Your task to perform on an android device: choose inbox layout in the gmail app Image 0: 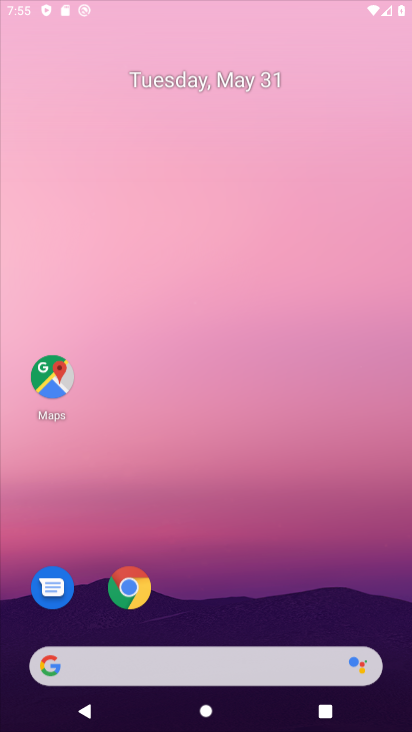
Step 0: press home button
Your task to perform on an android device: choose inbox layout in the gmail app Image 1: 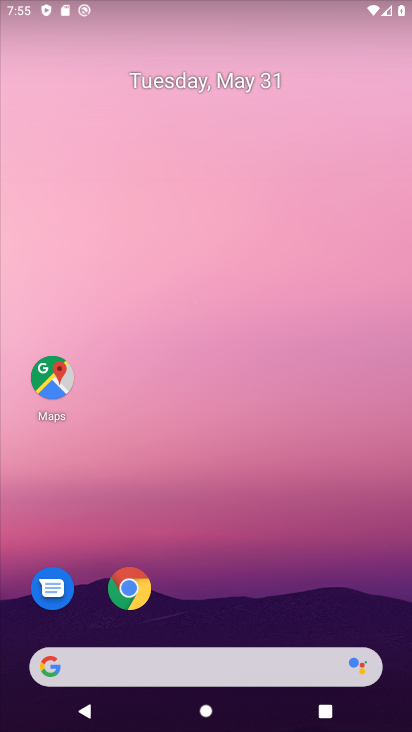
Step 1: drag from (196, 622) to (236, 287)
Your task to perform on an android device: choose inbox layout in the gmail app Image 2: 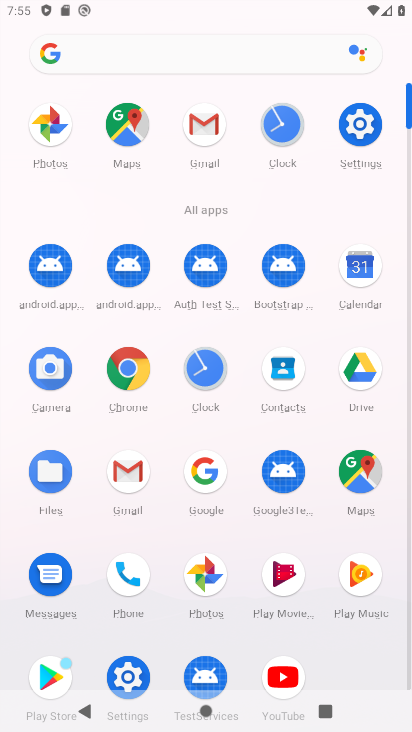
Step 2: click (196, 128)
Your task to perform on an android device: choose inbox layout in the gmail app Image 3: 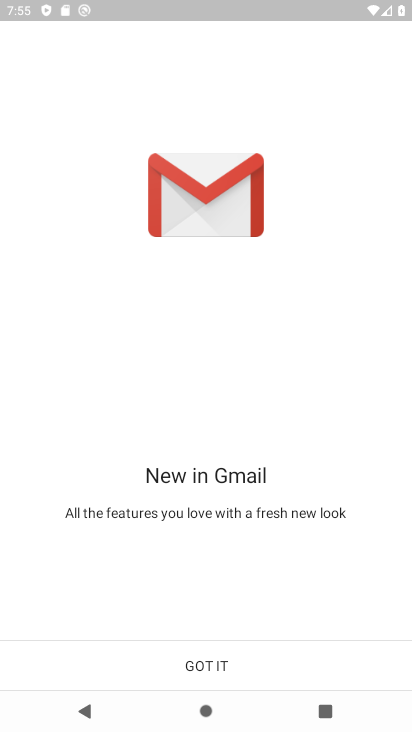
Step 3: click (228, 661)
Your task to perform on an android device: choose inbox layout in the gmail app Image 4: 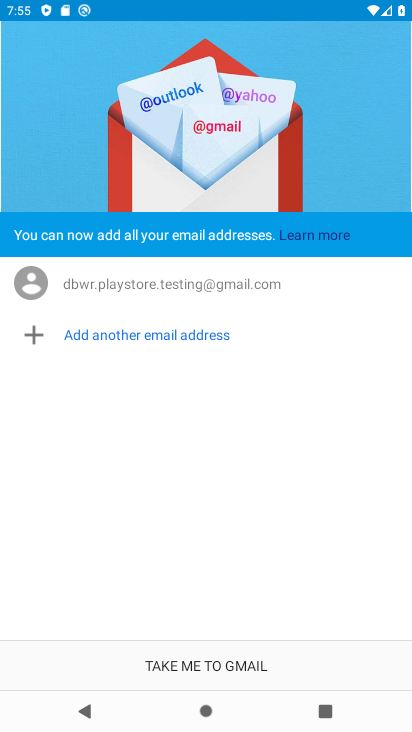
Step 4: click (220, 670)
Your task to perform on an android device: choose inbox layout in the gmail app Image 5: 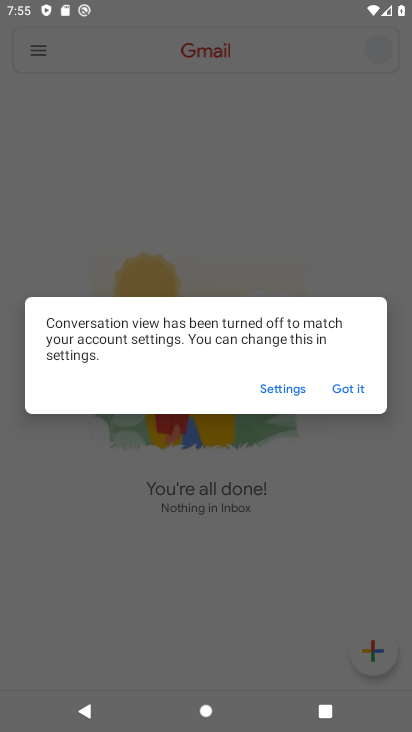
Step 5: click (337, 389)
Your task to perform on an android device: choose inbox layout in the gmail app Image 6: 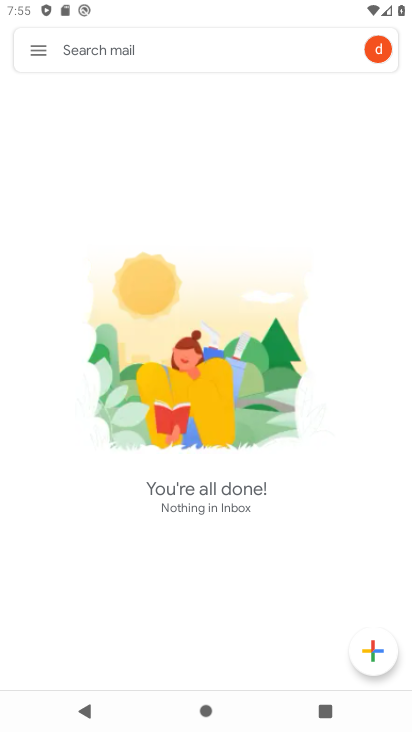
Step 6: click (34, 42)
Your task to perform on an android device: choose inbox layout in the gmail app Image 7: 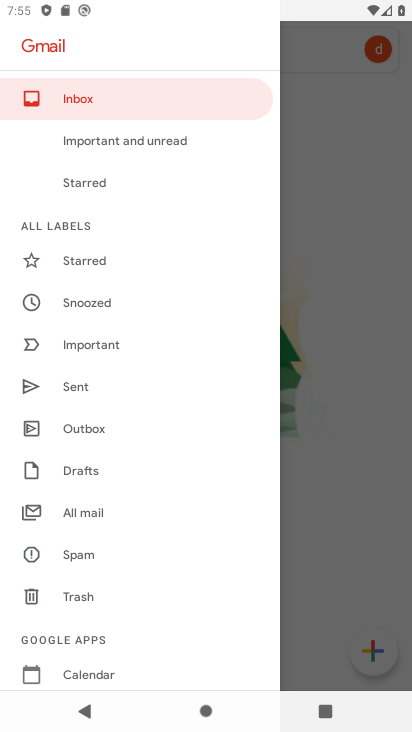
Step 7: drag from (78, 659) to (122, 168)
Your task to perform on an android device: choose inbox layout in the gmail app Image 8: 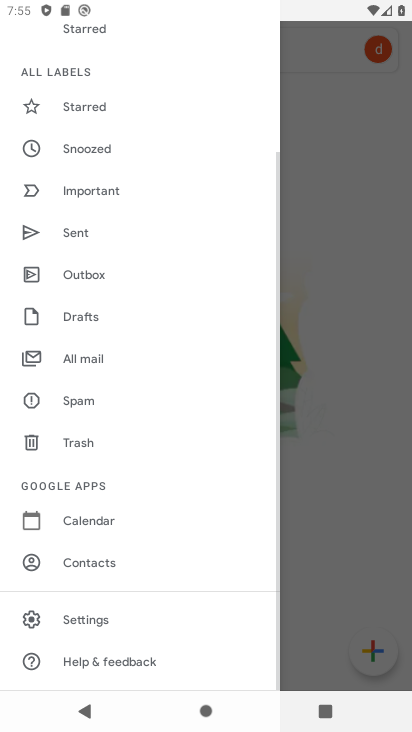
Step 8: click (95, 622)
Your task to perform on an android device: choose inbox layout in the gmail app Image 9: 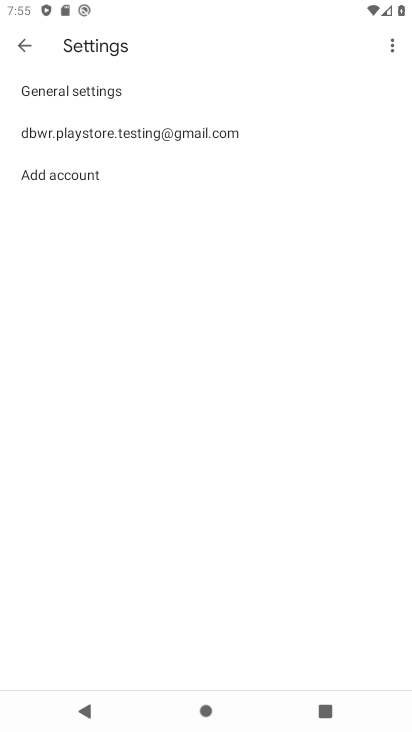
Step 9: click (121, 137)
Your task to perform on an android device: choose inbox layout in the gmail app Image 10: 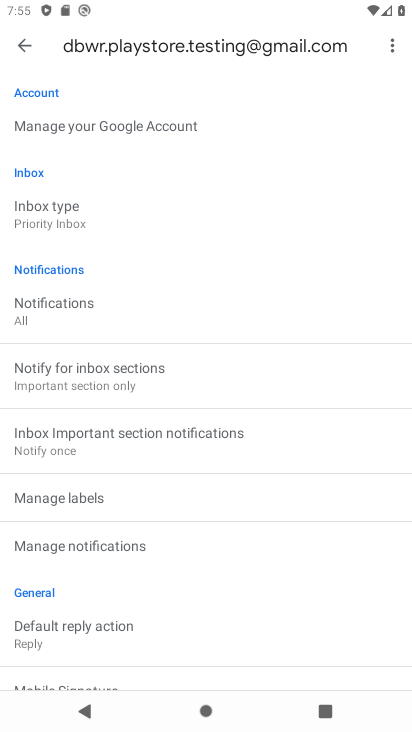
Step 10: click (45, 207)
Your task to perform on an android device: choose inbox layout in the gmail app Image 11: 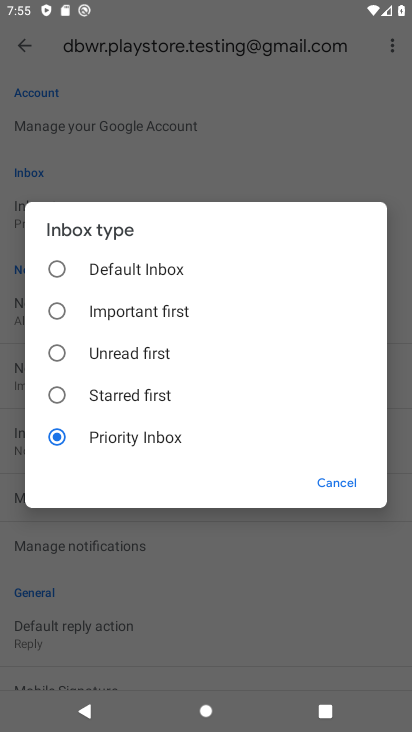
Step 11: click (99, 315)
Your task to perform on an android device: choose inbox layout in the gmail app Image 12: 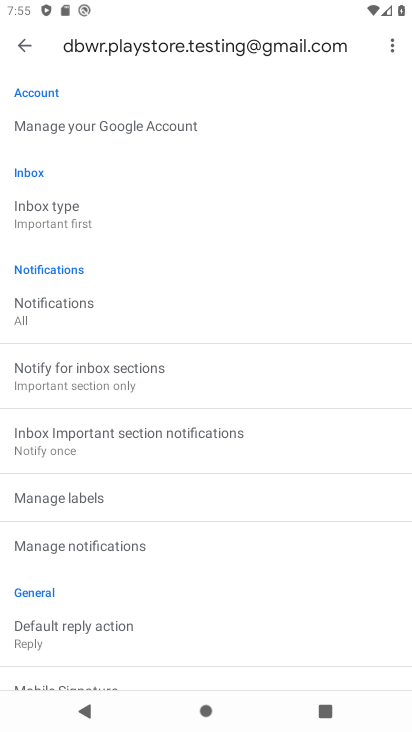
Step 12: task complete